Your task to perform on an android device: Search for Mexican restaurants on Maps Image 0: 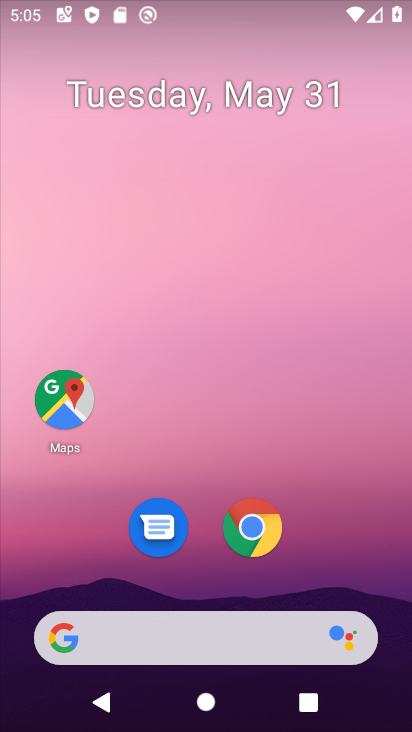
Step 0: click (73, 405)
Your task to perform on an android device: Search for Mexican restaurants on Maps Image 1: 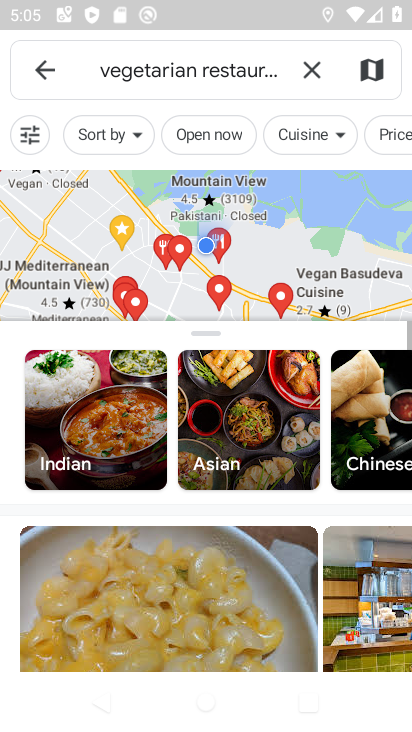
Step 1: click (310, 62)
Your task to perform on an android device: Search for Mexican restaurants on Maps Image 2: 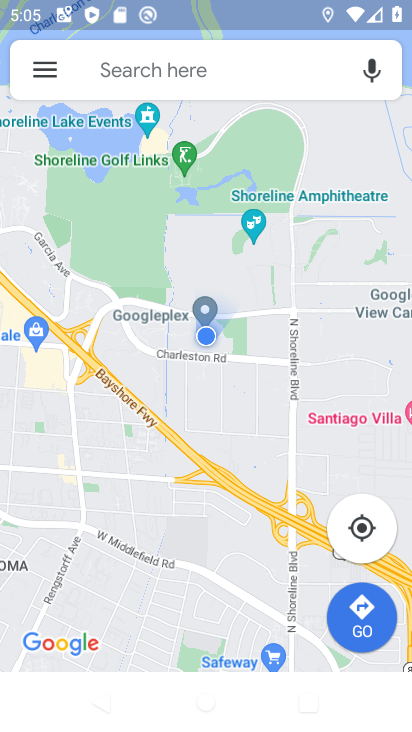
Step 2: click (181, 69)
Your task to perform on an android device: Search for Mexican restaurants on Maps Image 3: 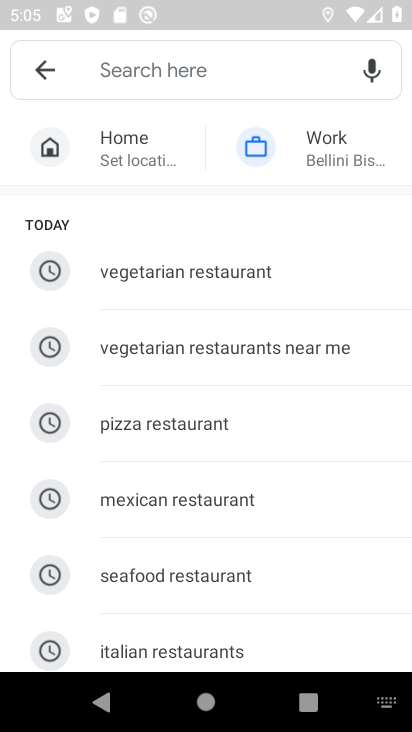
Step 3: type "Mexican restaurants "
Your task to perform on an android device: Search for Mexican restaurants on Maps Image 4: 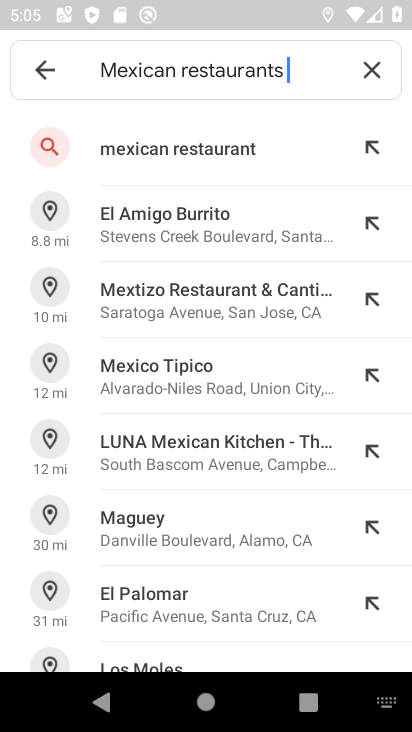
Step 4: click (185, 149)
Your task to perform on an android device: Search for Mexican restaurants on Maps Image 5: 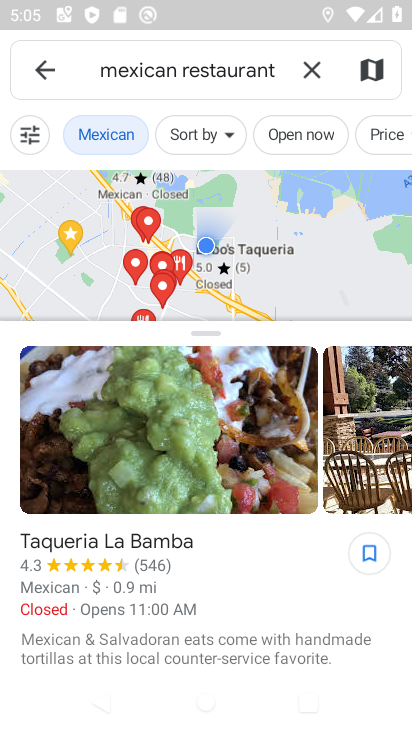
Step 5: task complete